Your task to perform on an android device: visit the assistant section in the google photos Image 0: 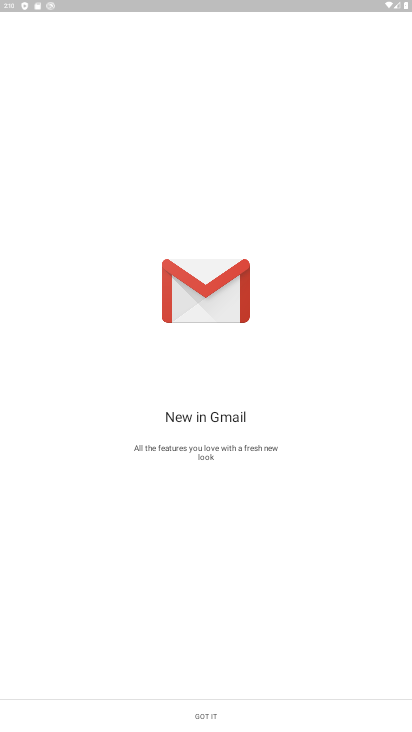
Step 0: press home button
Your task to perform on an android device: visit the assistant section in the google photos Image 1: 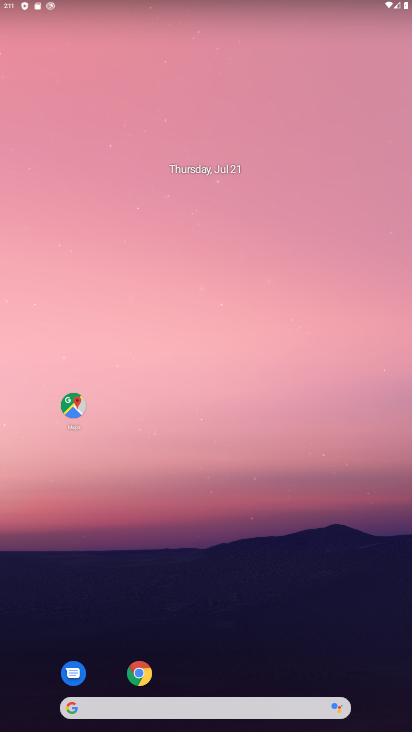
Step 1: drag from (360, 640) to (352, 189)
Your task to perform on an android device: visit the assistant section in the google photos Image 2: 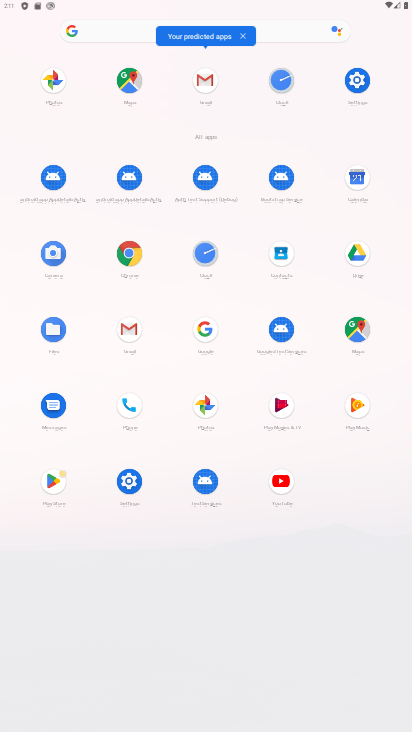
Step 2: click (202, 404)
Your task to perform on an android device: visit the assistant section in the google photos Image 3: 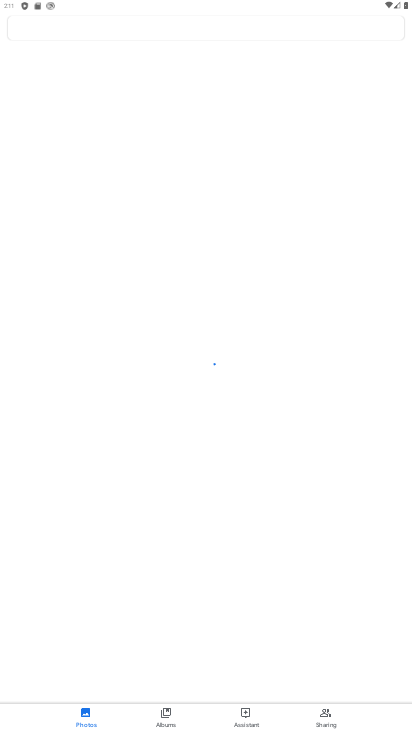
Step 3: click (241, 720)
Your task to perform on an android device: visit the assistant section in the google photos Image 4: 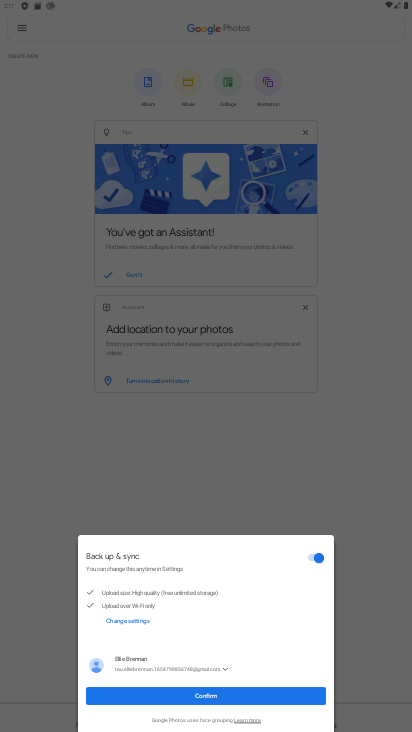
Step 4: click (200, 695)
Your task to perform on an android device: visit the assistant section in the google photos Image 5: 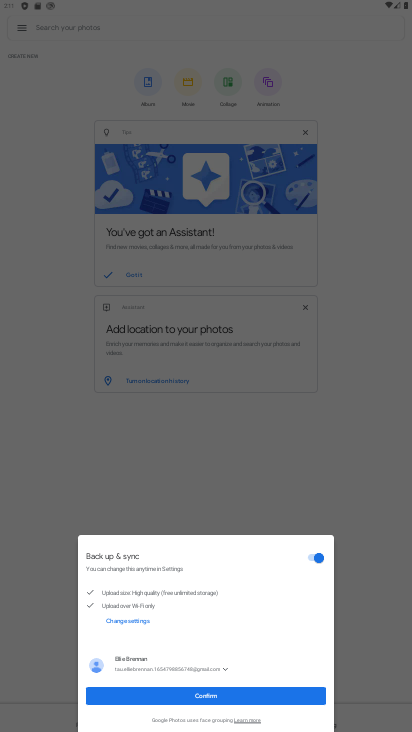
Step 5: click (202, 693)
Your task to perform on an android device: visit the assistant section in the google photos Image 6: 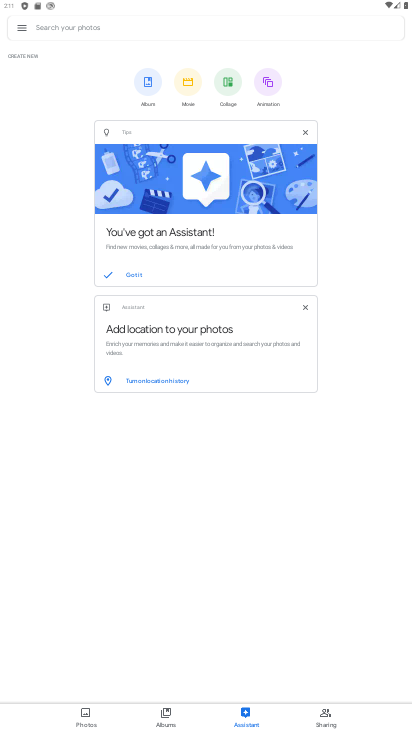
Step 6: task complete